Your task to perform on an android device: Go to Wikipedia Image 0: 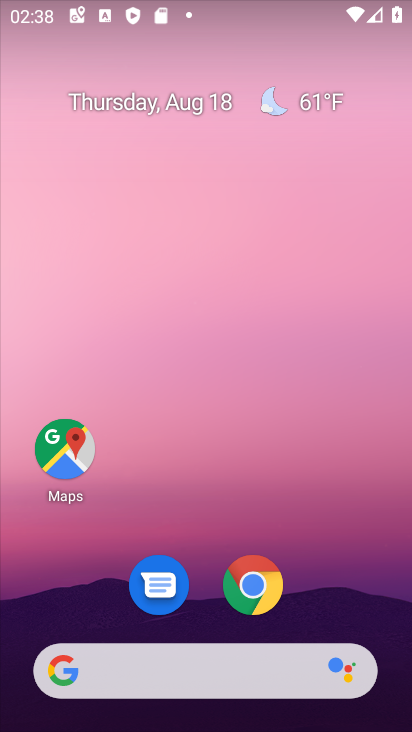
Step 0: click (250, 580)
Your task to perform on an android device: Go to Wikipedia Image 1: 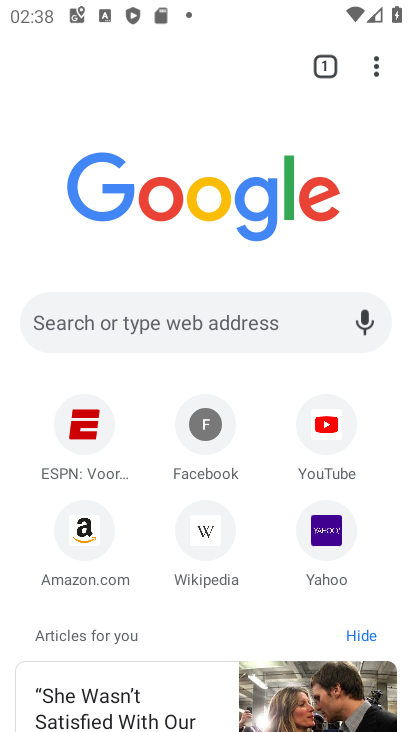
Step 1: click (206, 537)
Your task to perform on an android device: Go to Wikipedia Image 2: 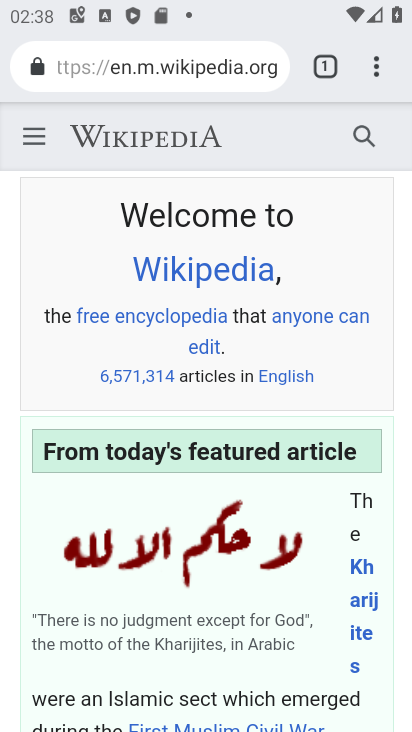
Step 2: task complete